Your task to perform on an android device: open app "Messenger Lite" (install if not already installed) Image 0: 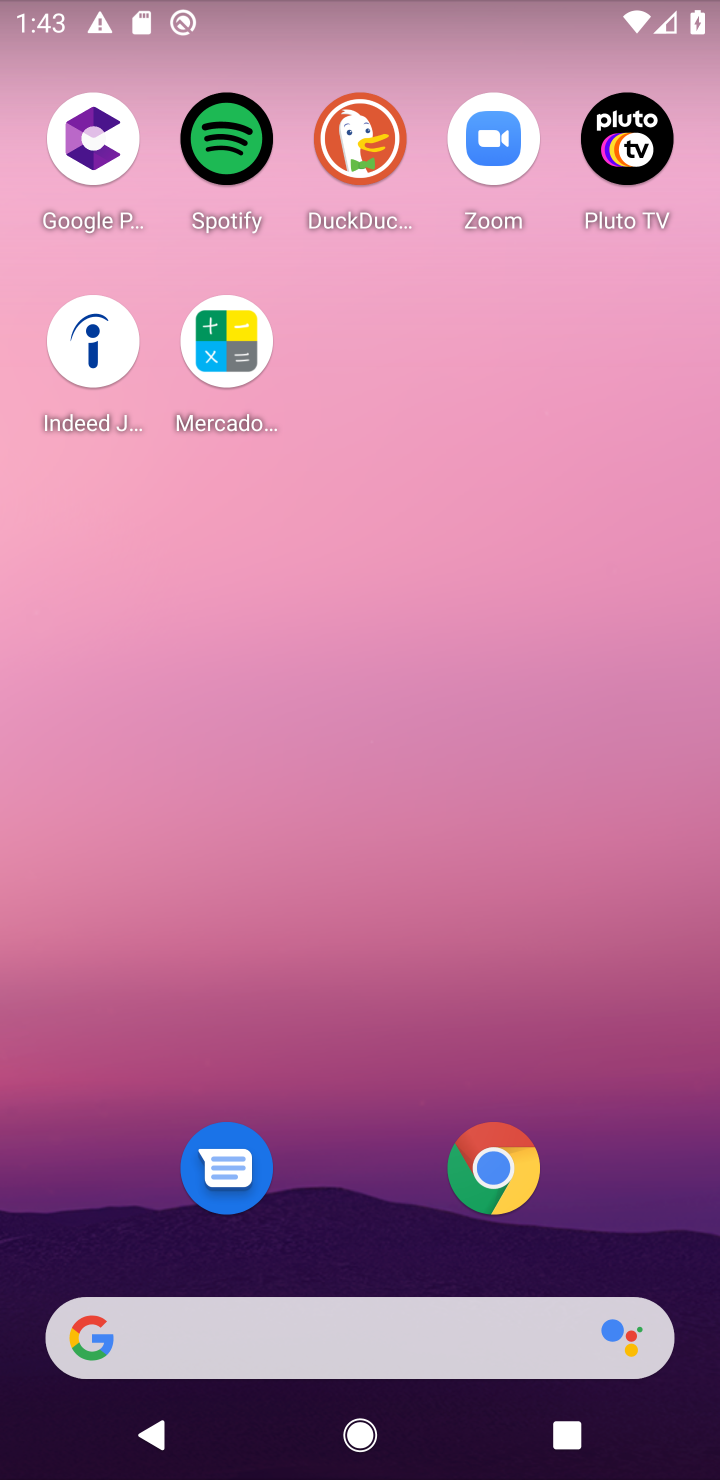
Step 0: drag from (660, 1222) to (593, 298)
Your task to perform on an android device: open app "Messenger Lite" (install if not already installed) Image 1: 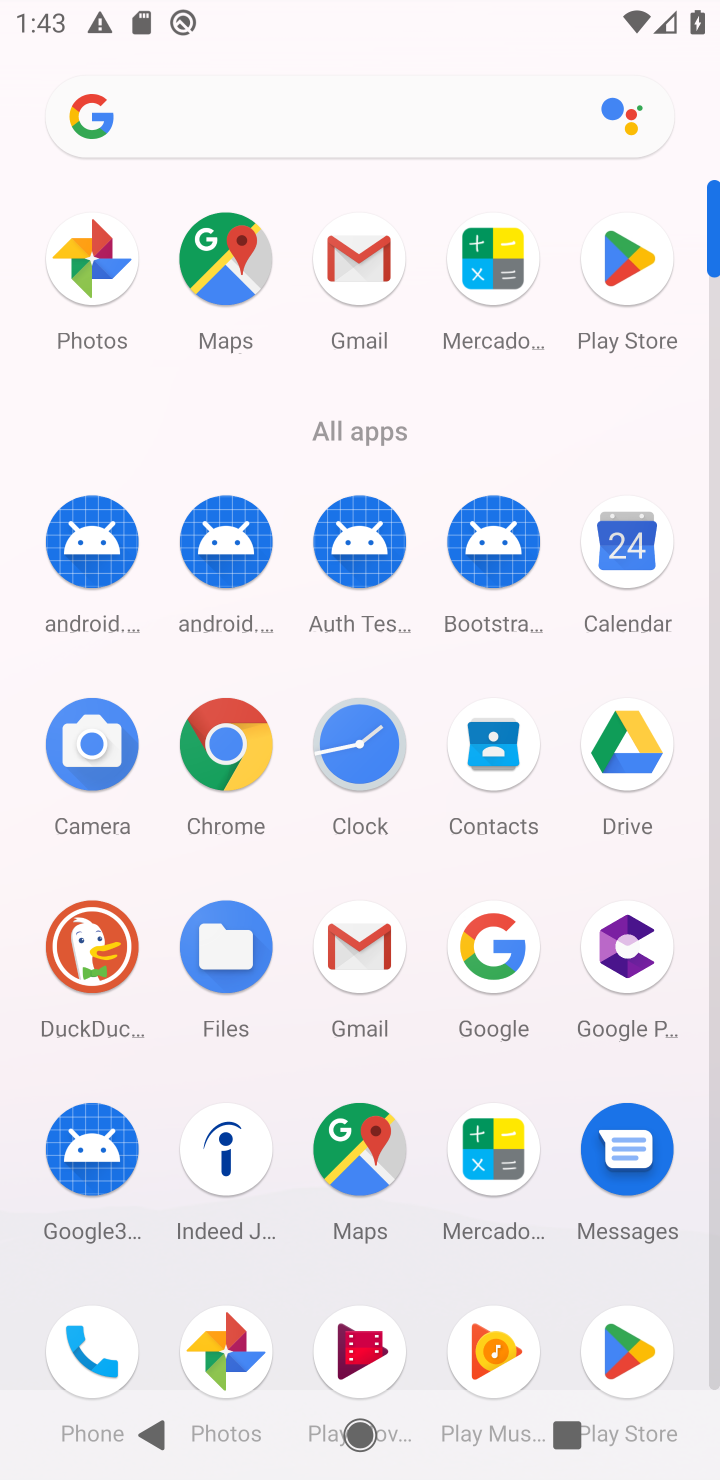
Step 1: click (628, 1349)
Your task to perform on an android device: open app "Messenger Lite" (install if not already installed) Image 2: 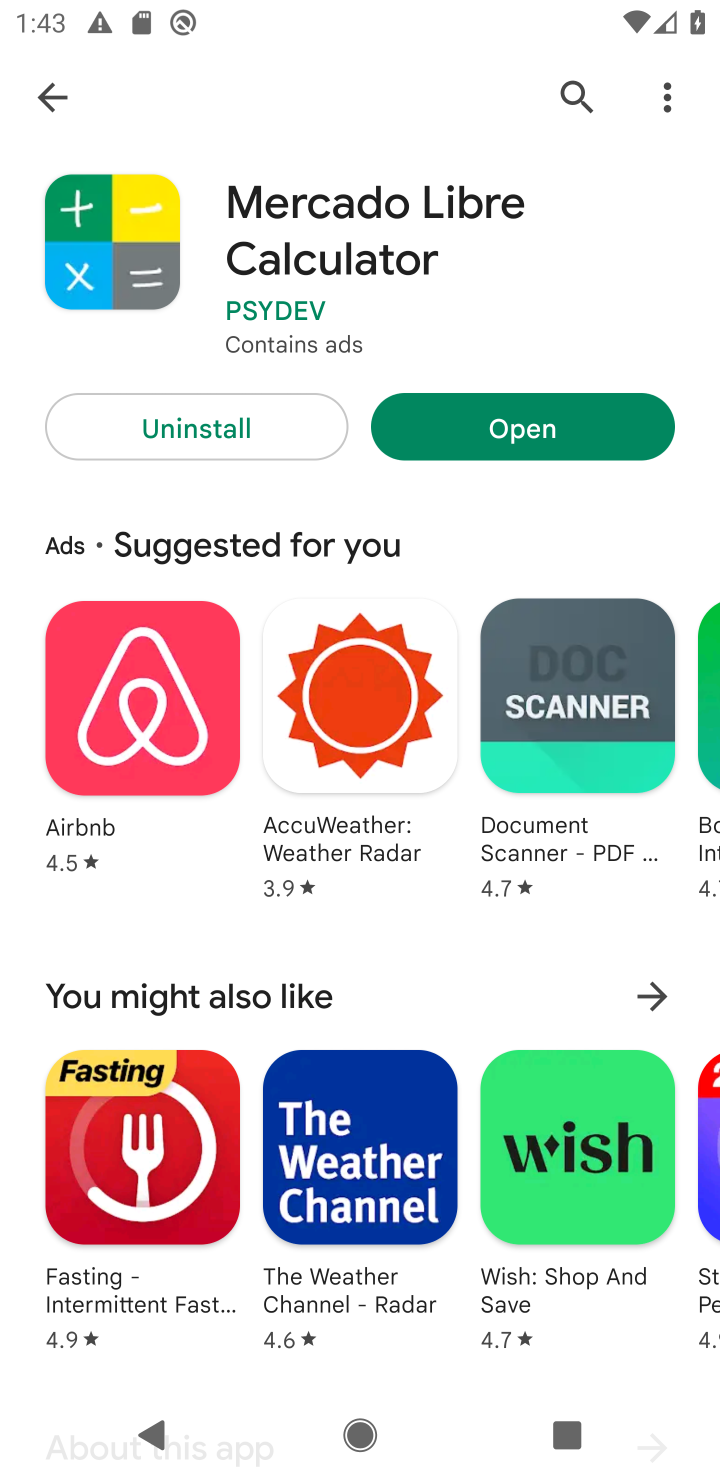
Step 2: click (46, 85)
Your task to perform on an android device: open app "Messenger Lite" (install if not already installed) Image 3: 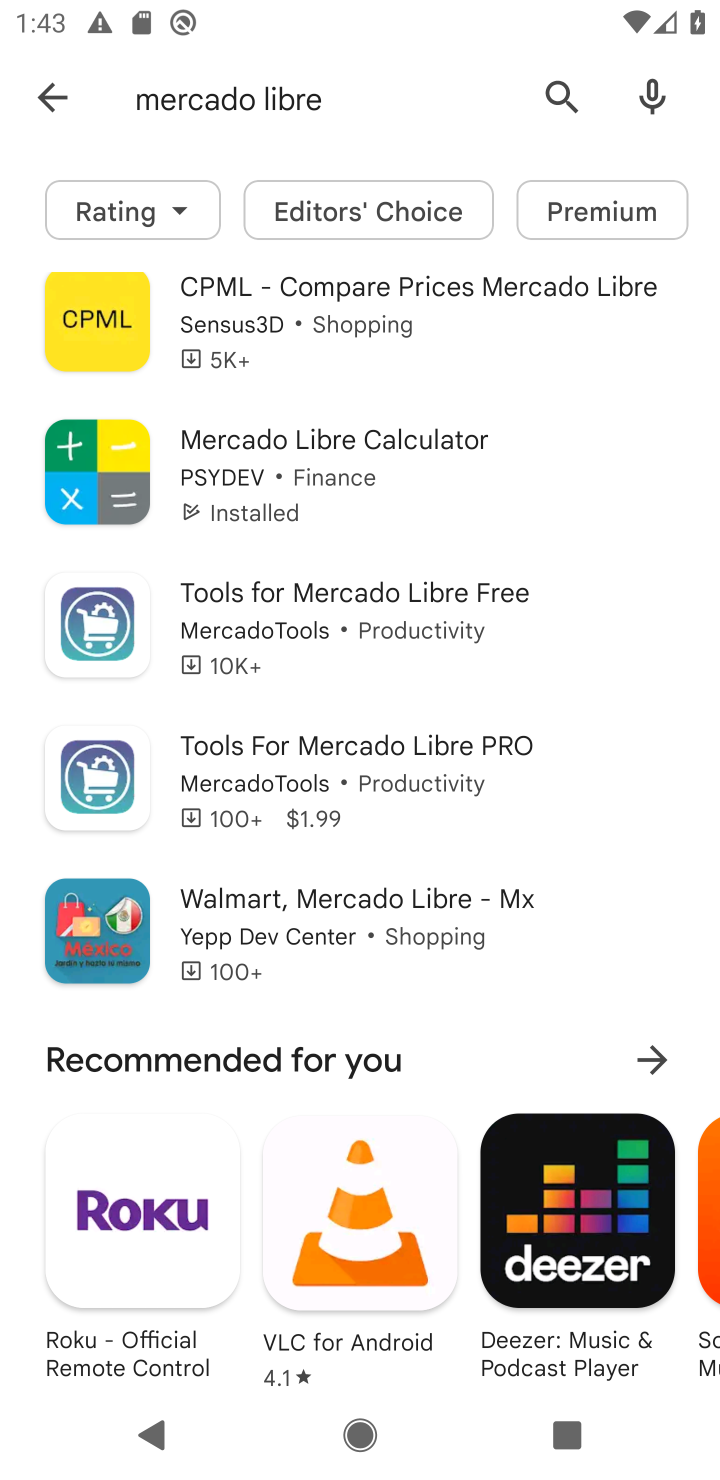
Step 3: click (560, 90)
Your task to perform on an android device: open app "Messenger Lite" (install if not already installed) Image 4: 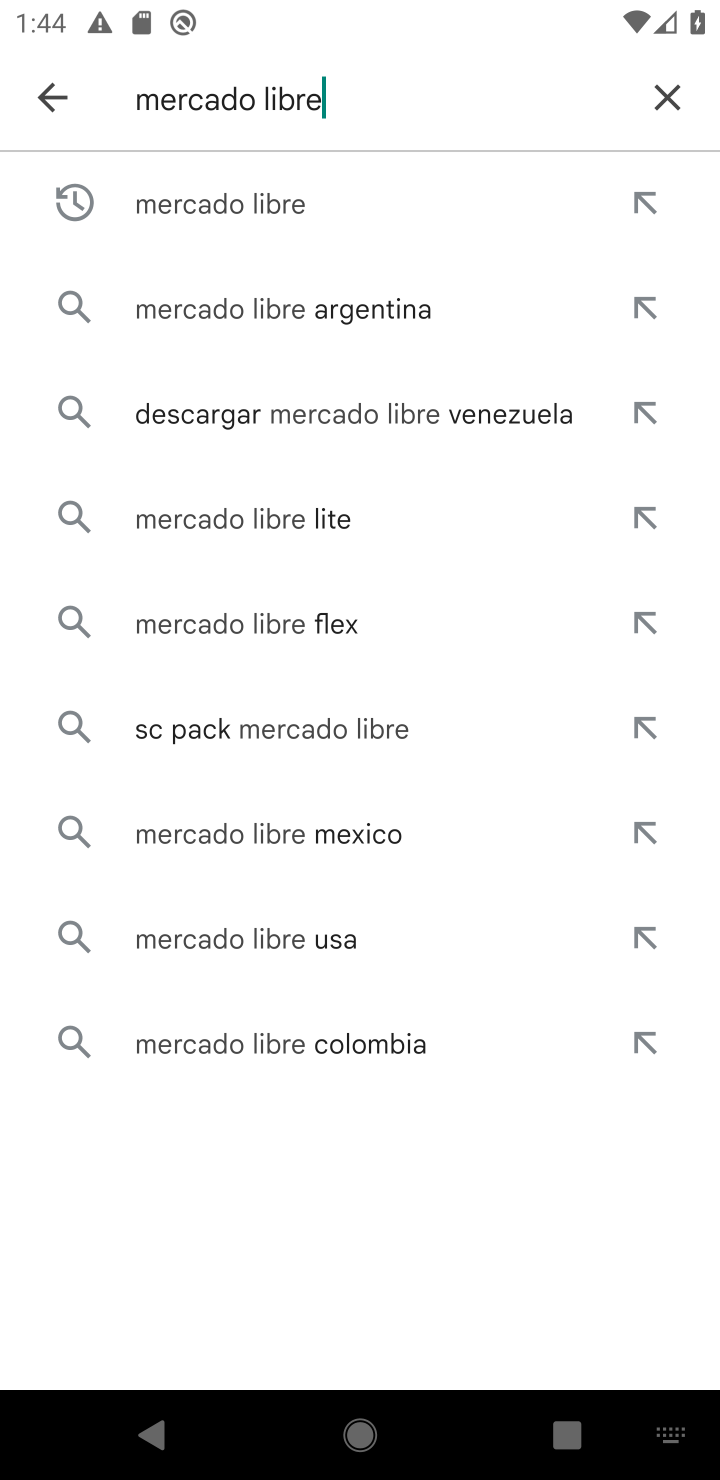
Step 4: click (667, 90)
Your task to perform on an android device: open app "Messenger Lite" (install if not already installed) Image 5: 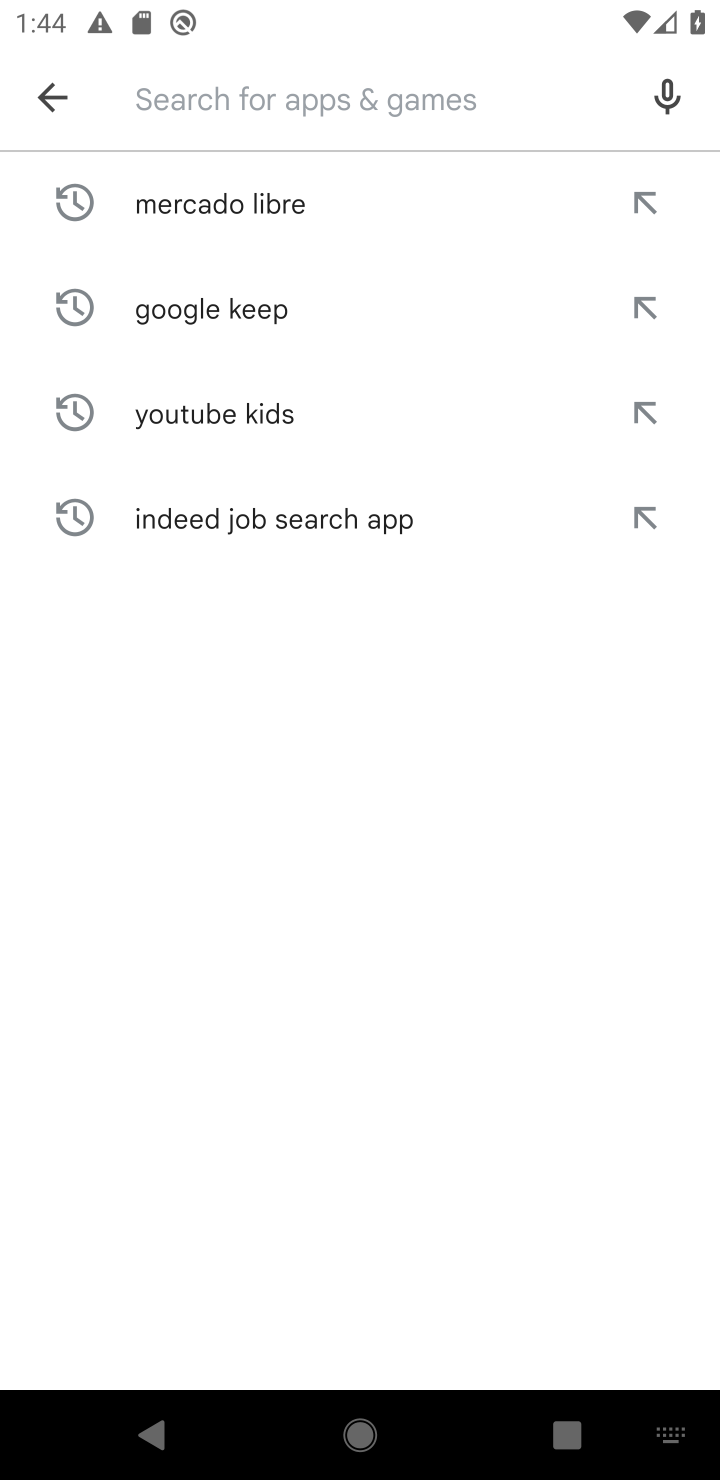
Step 5: type "Messenger Lite"
Your task to perform on an android device: open app "Messenger Lite" (install if not already installed) Image 6: 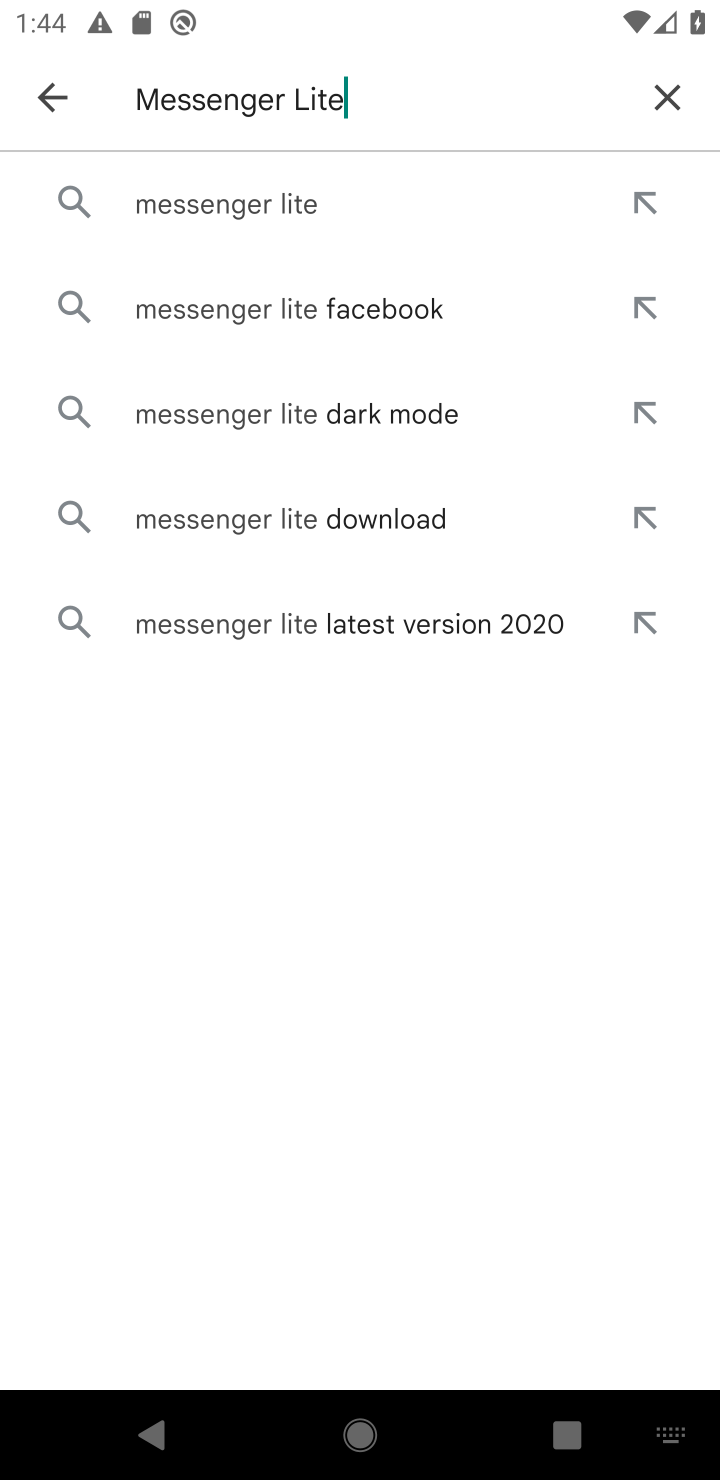
Step 6: click (230, 193)
Your task to perform on an android device: open app "Messenger Lite" (install if not already installed) Image 7: 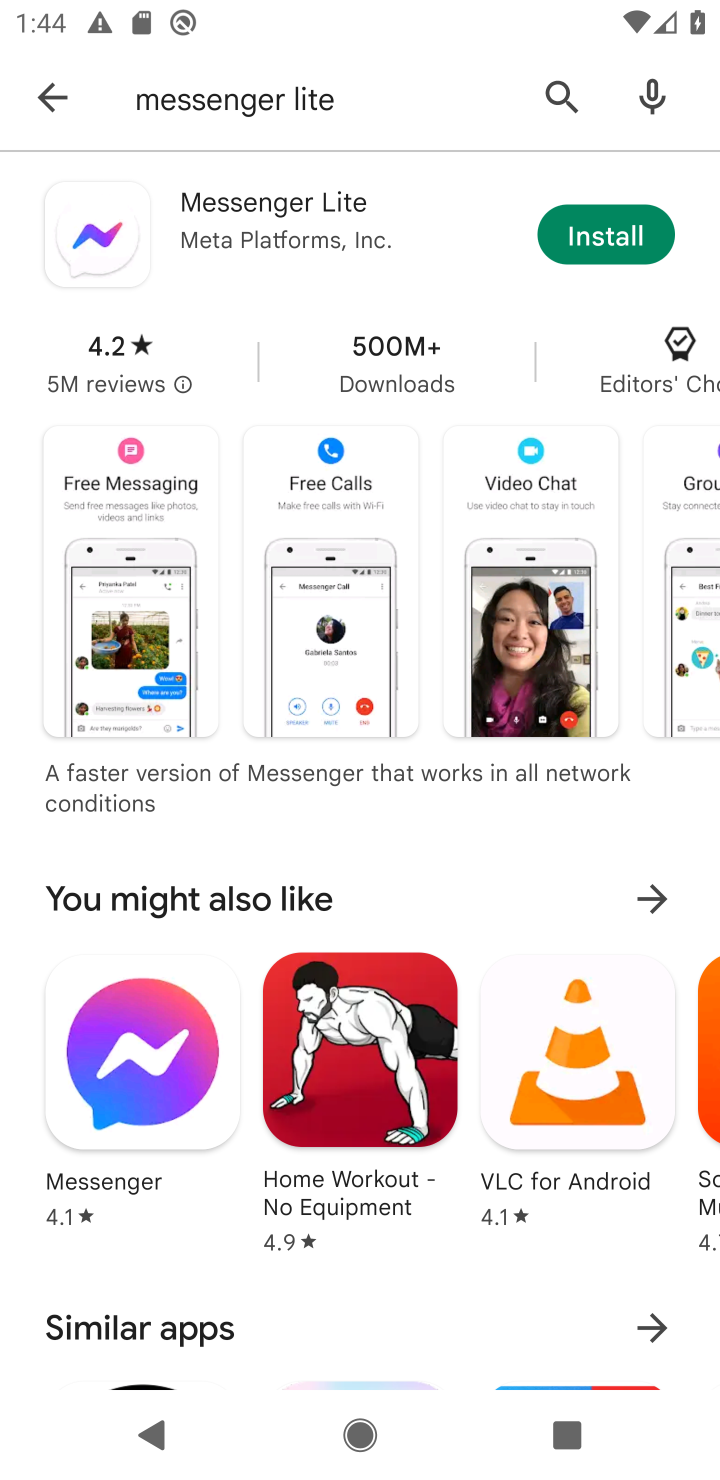
Step 7: click (603, 245)
Your task to perform on an android device: open app "Messenger Lite" (install if not already installed) Image 8: 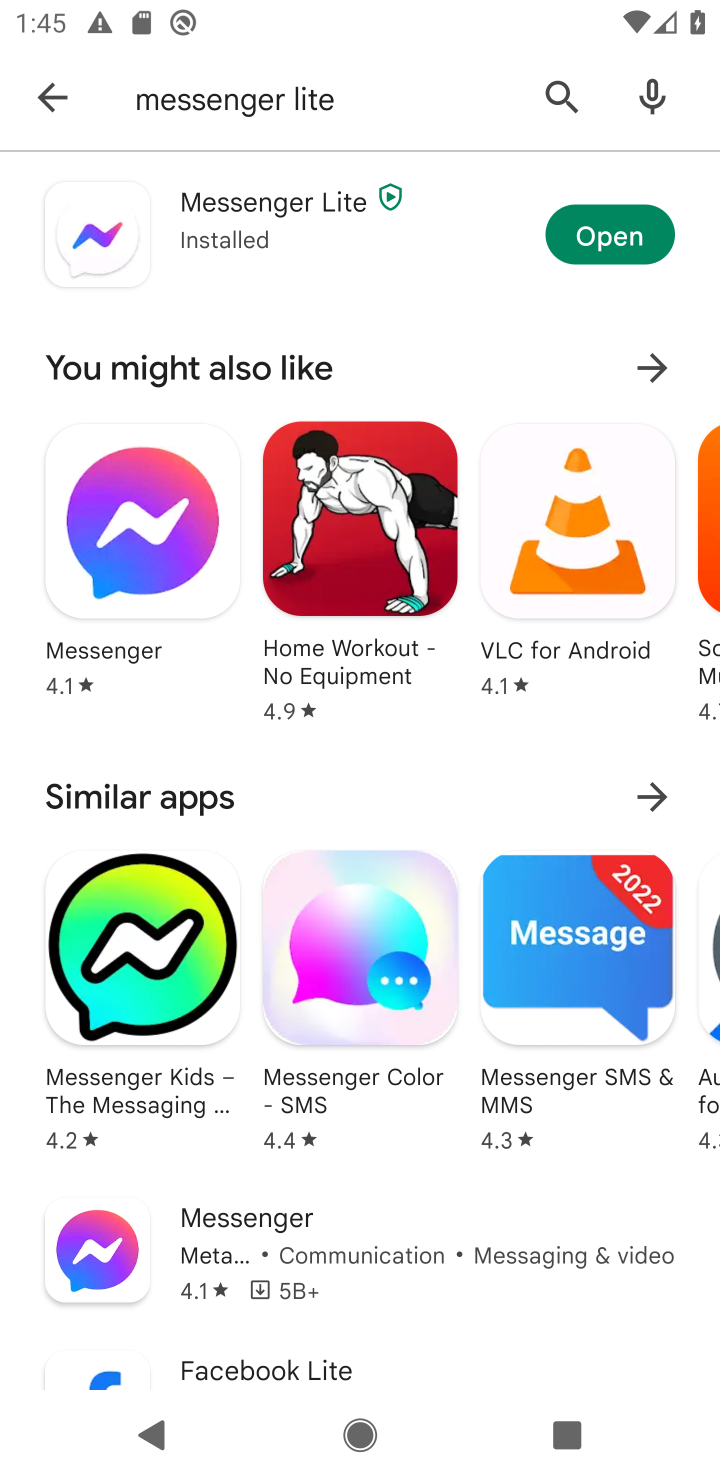
Step 8: click (603, 245)
Your task to perform on an android device: open app "Messenger Lite" (install if not already installed) Image 9: 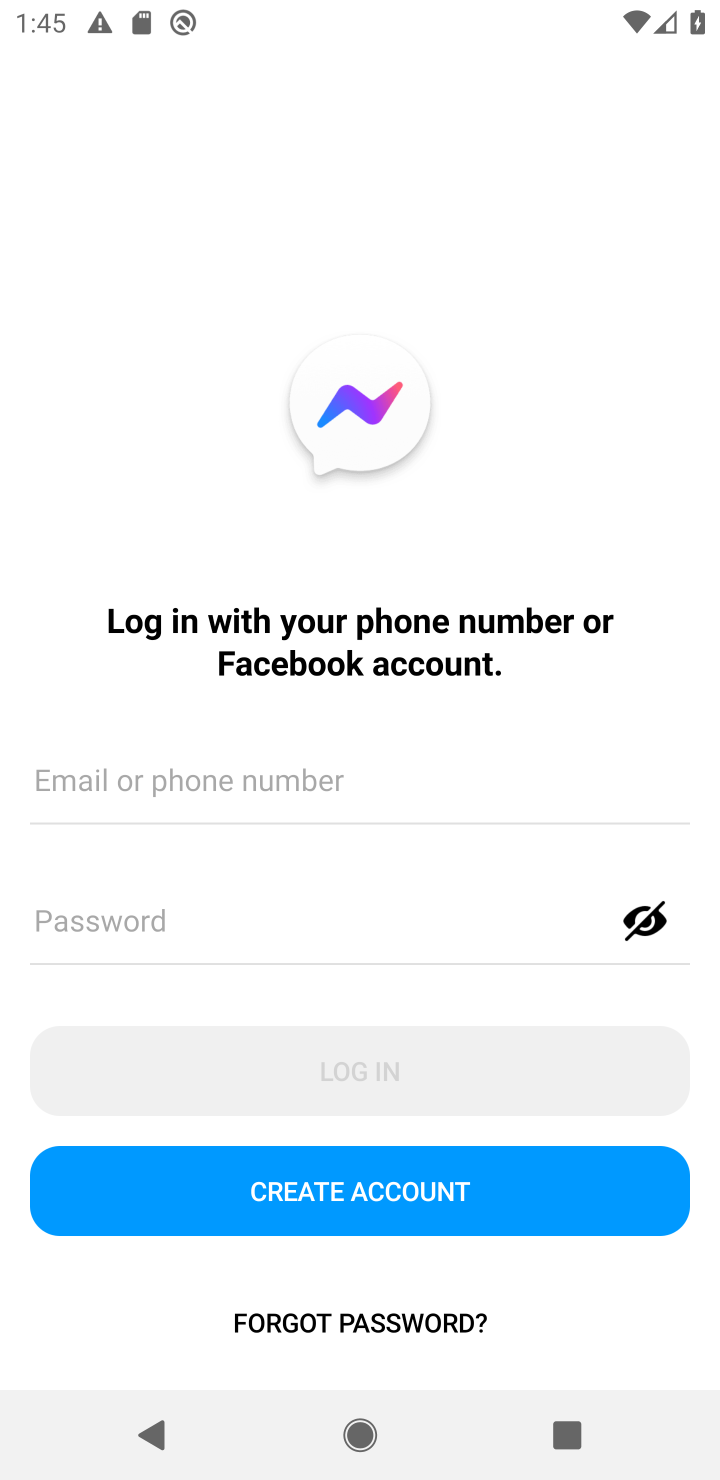
Step 9: task complete